Your task to perform on an android device: Open location settings Image 0: 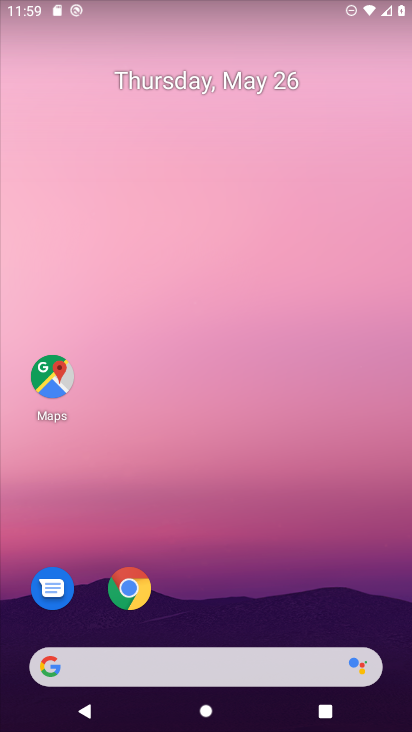
Step 0: drag from (381, 593) to (331, 89)
Your task to perform on an android device: Open location settings Image 1: 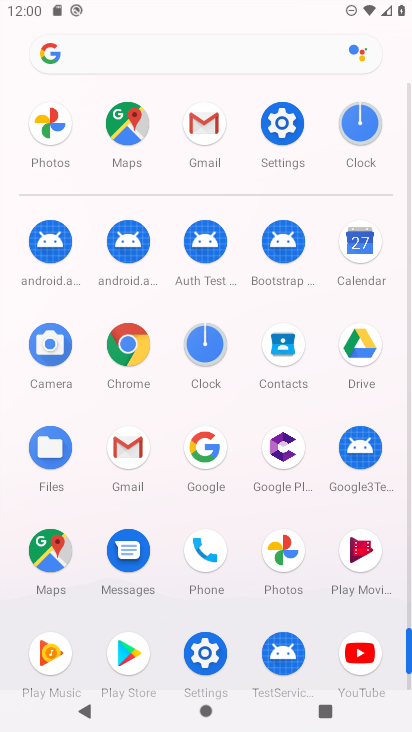
Step 1: click (203, 655)
Your task to perform on an android device: Open location settings Image 2: 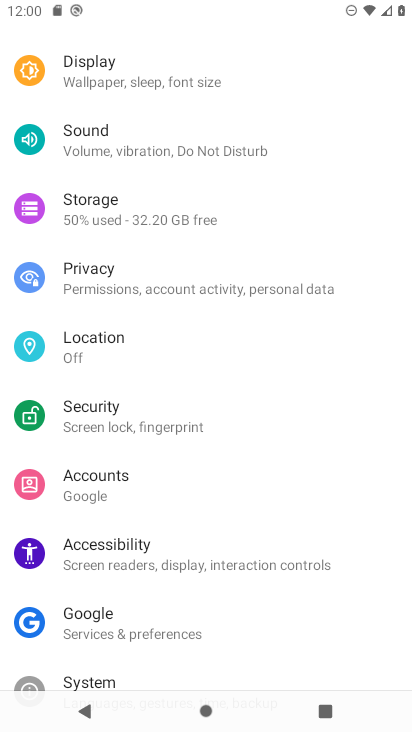
Step 2: click (88, 336)
Your task to perform on an android device: Open location settings Image 3: 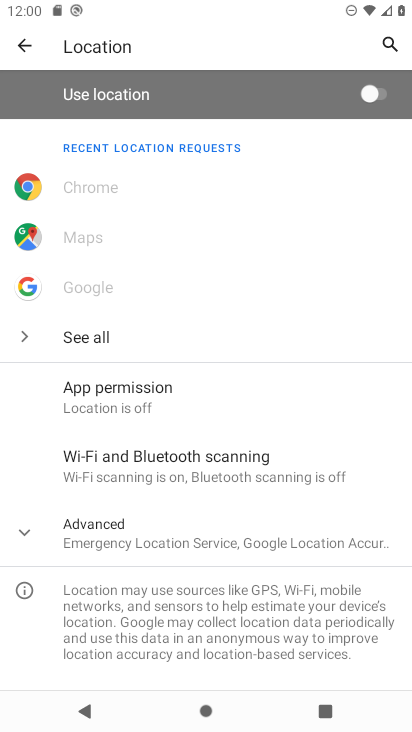
Step 3: click (23, 534)
Your task to perform on an android device: Open location settings Image 4: 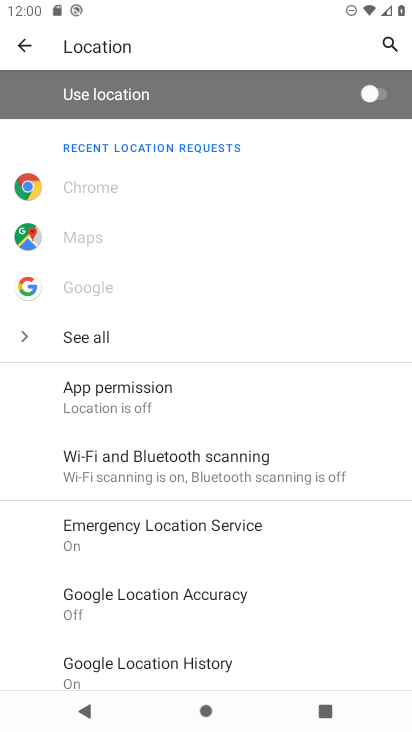
Step 4: click (385, 92)
Your task to perform on an android device: Open location settings Image 5: 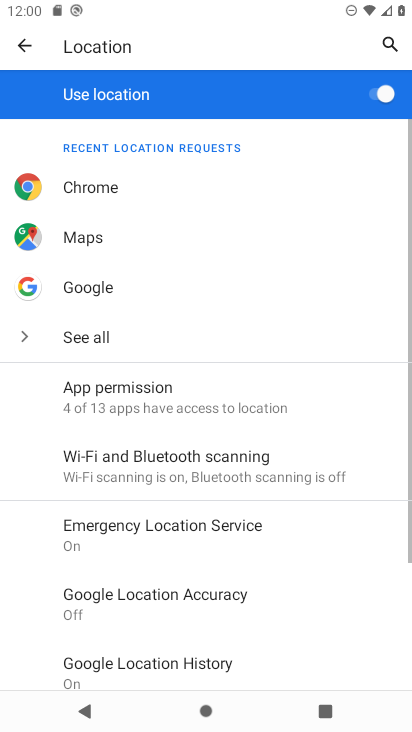
Step 5: task complete